Your task to perform on an android device: change the upload size in google photos Image 0: 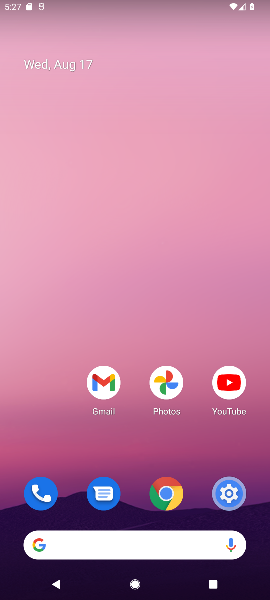
Step 0: press home button
Your task to perform on an android device: change the upload size in google photos Image 1: 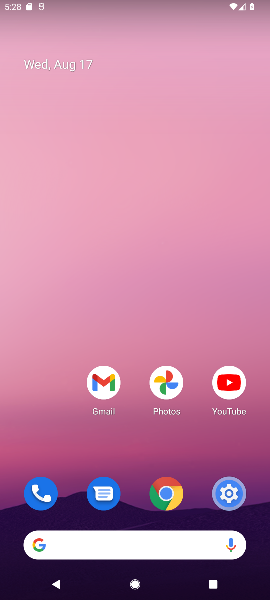
Step 1: click (163, 394)
Your task to perform on an android device: change the upload size in google photos Image 2: 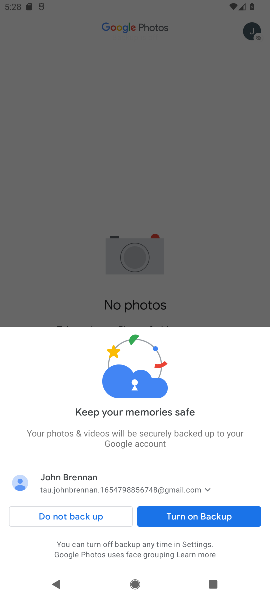
Step 2: click (109, 516)
Your task to perform on an android device: change the upload size in google photos Image 3: 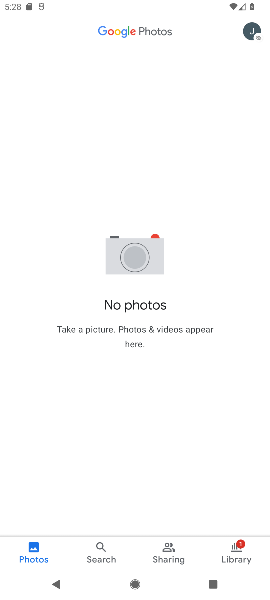
Step 3: click (254, 36)
Your task to perform on an android device: change the upload size in google photos Image 4: 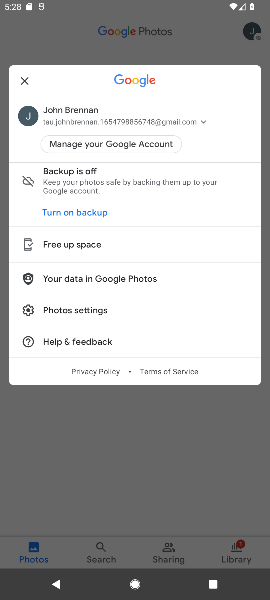
Step 4: click (87, 318)
Your task to perform on an android device: change the upload size in google photos Image 5: 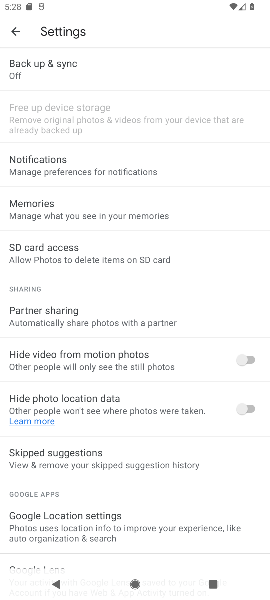
Step 5: click (38, 62)
Your task to perform on an android device: change the upload size in google photos Image 6: 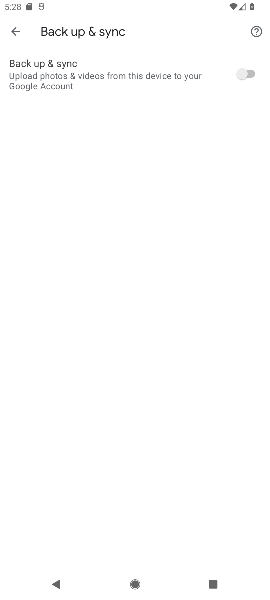
Step 6: click (54, 69)
Your task to perform on an android device: change the upload size in google photos Image 7: 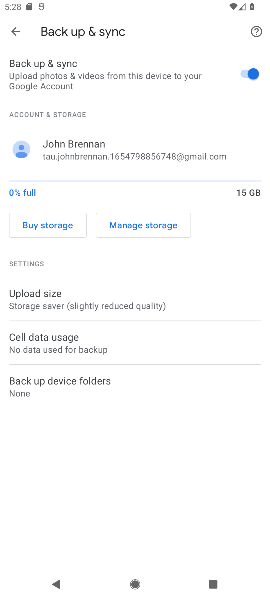
Step 7: click (45, 304)
Your task to perform on an android device: change the upload size in google photos Image 8: 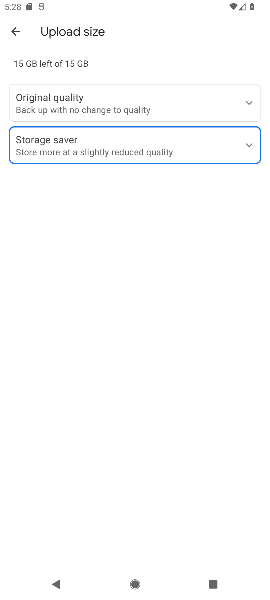
Step 8: click (43, 99)
Your task to perform on an android device: change the upload size in google photos Image 9: 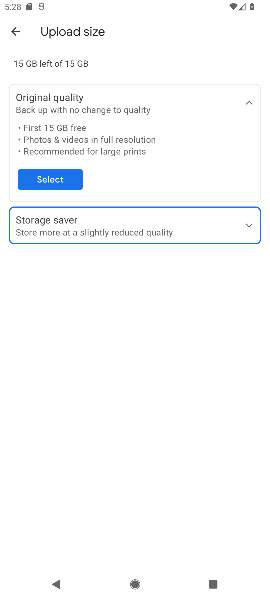
Step 9: click (52, 179)
Your task to perform on an android device: change the upload size in google photos Image 10: 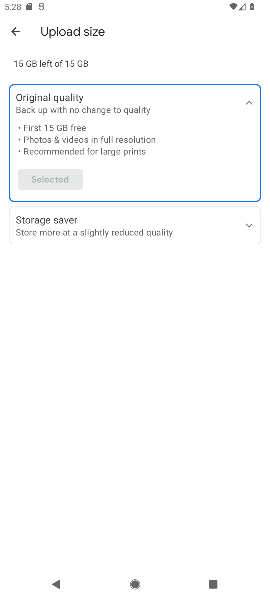
Step 10: task complete